Your task to perform on an android device: Open Google Chrome and open the bookmarks view Image 0: 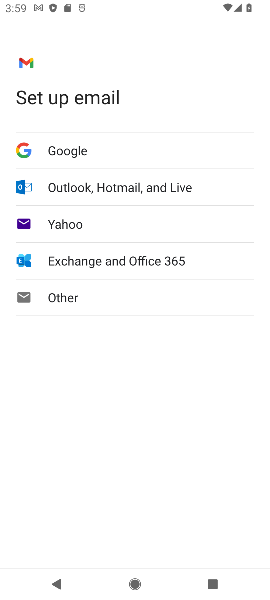
Step 0: press home button
Your task to perform on an android device: Open Google Chrome and open the bookmarks view Image 1: 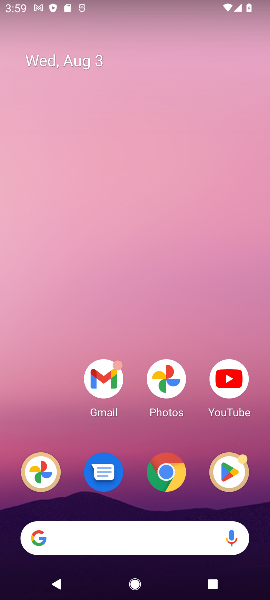
Step 1: drag from (140, 429) to (150, 43)
Your task to perform on an android device: Open Google Chrome and open the bookmarks view Image 2: 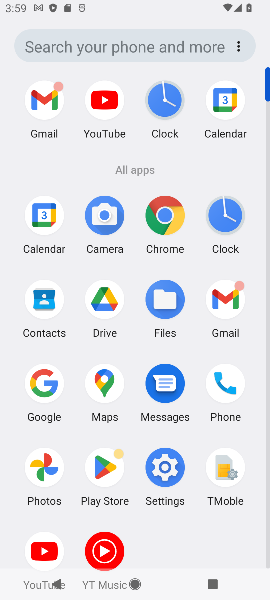
Step 2: click (165, 213)
Your task to perform on an android device: Open Google Chrome and open the bookmarks view Image 3: 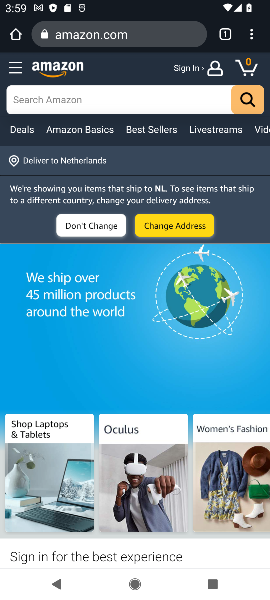
Step 3: task complete